Your task to perform on an android device: Show me recent news Image 0: 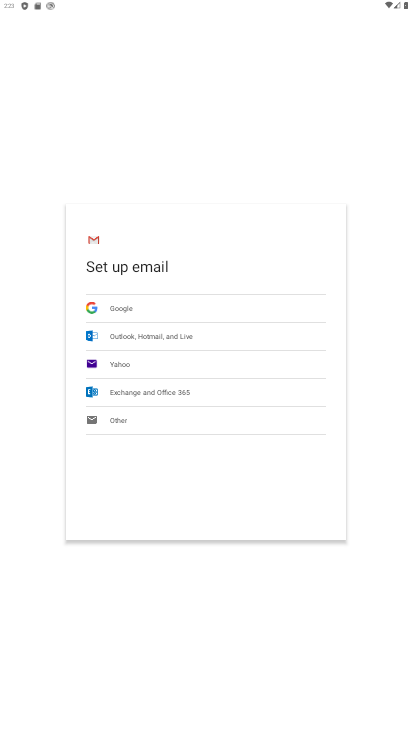
Step 0: press home button
Your task to perform on an android device: Show me recent news Image 1: 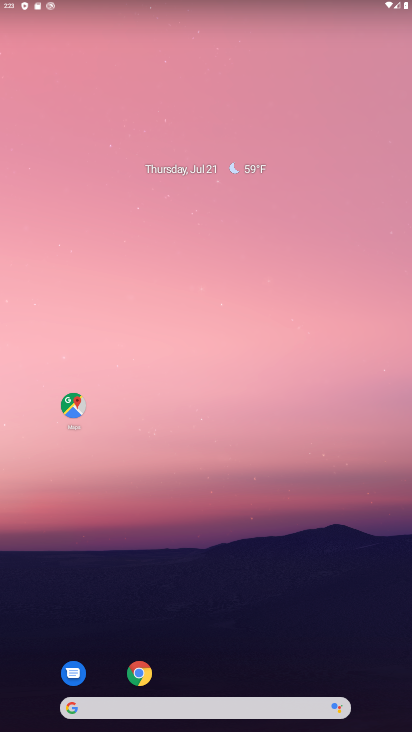
Step 1: task complete